Your task to perform on an android device: Check the news Image 0: 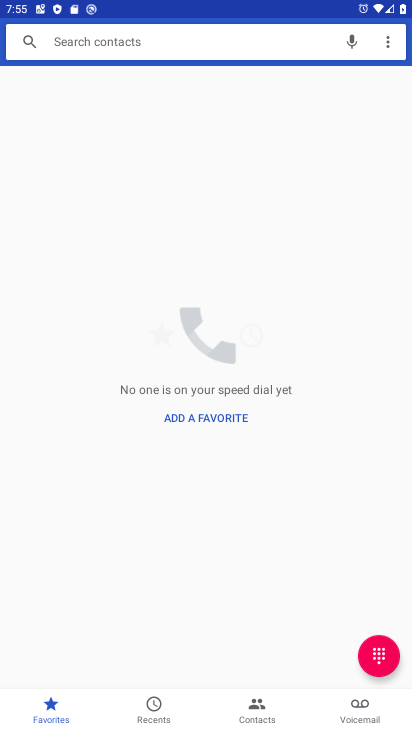
Step 0: press home button
Your task to perform on an android device: Check the news Image 1: 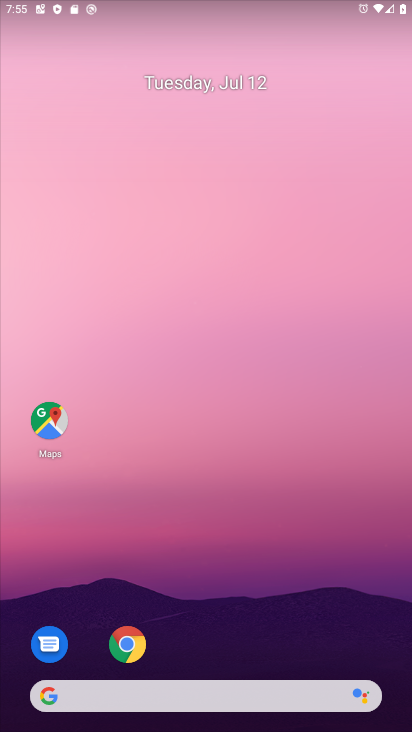
Step 1: drag from (149, 681) to (178, 252)
Your task to perform on an android device: Check the news Image 2: 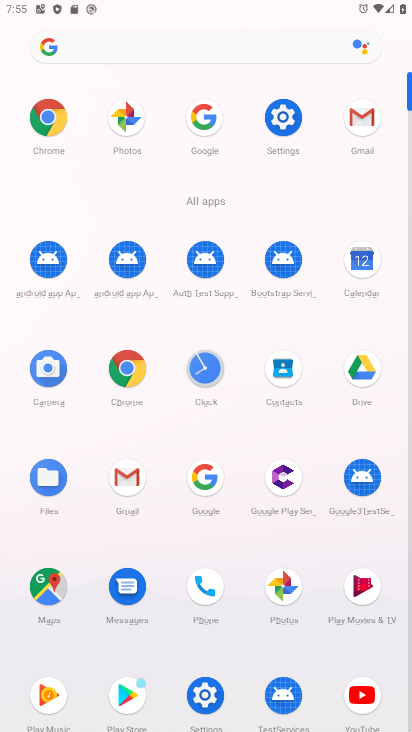
Step 2: click (206, 108)
Your task to perform on an android device: Check the news Image 3: 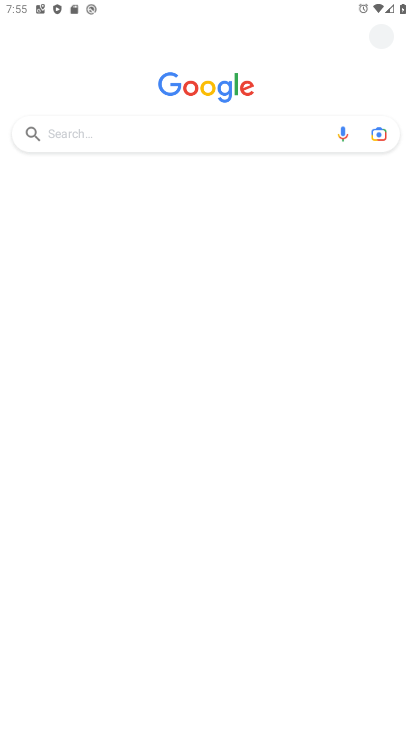
Step 3: click (203, 120)
Your task to perform on an android device: Check the news Image 4: 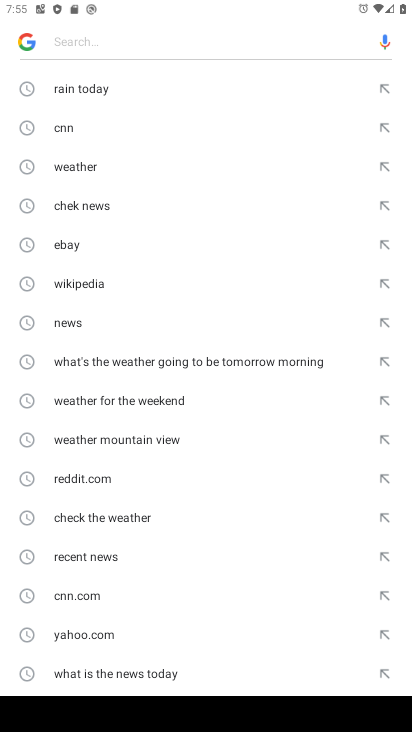
Step 4: click (79, 207)
Your task to perform on an android device: Check the news Image 5: 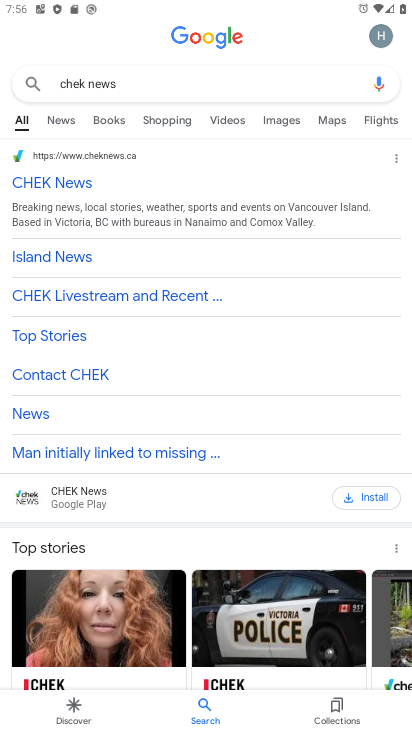
Step 5: click (159, 200)
Your task to perform on an android device: Check the news Image 6: 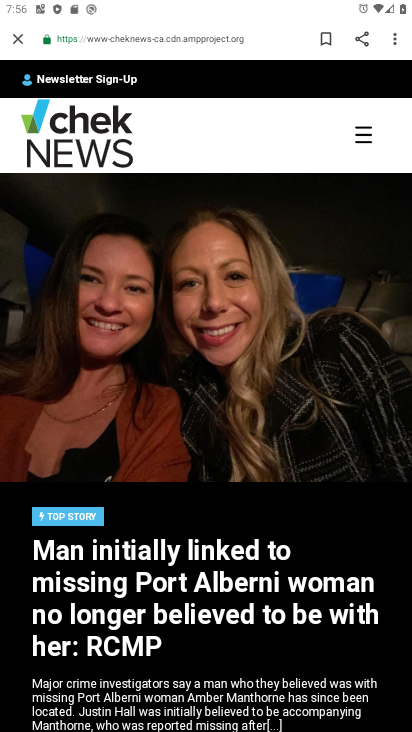
Step 6: task complete